Your task to perform on an android device: Open display settings Image 0: 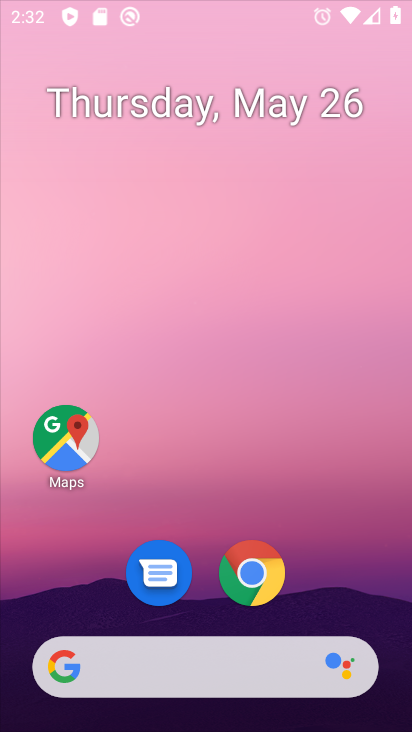
Step 0: click (281, 12)
Your task to perform on an android device: Open display settings Image 1: 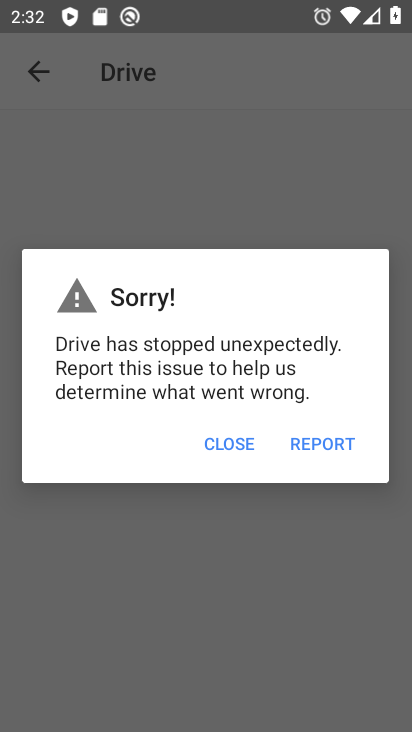
Step 1: press home button
Your task to perform on an android device: Open display settings Image 2: 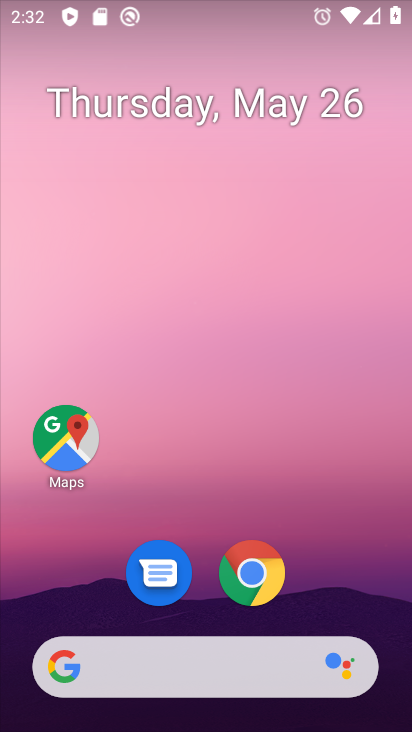
Step 2: drag from (325, 591) to (269, 163)
Your task to perform on an android device: Open display settings Image 3: 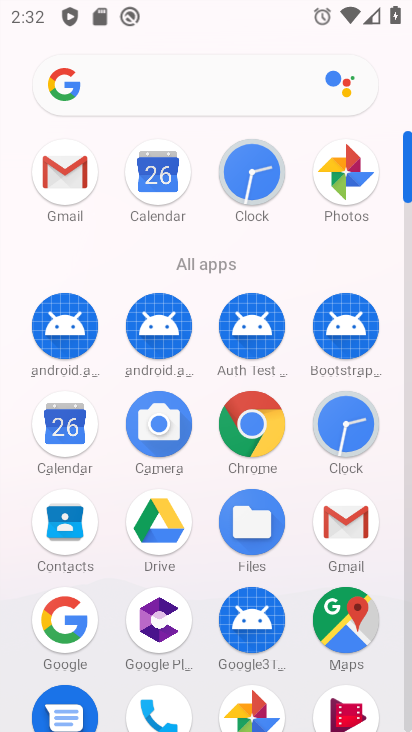
Step 3: drag from (213, 590) to (215, 464)
Your task to perform on an android device: Open display settings Image 4: 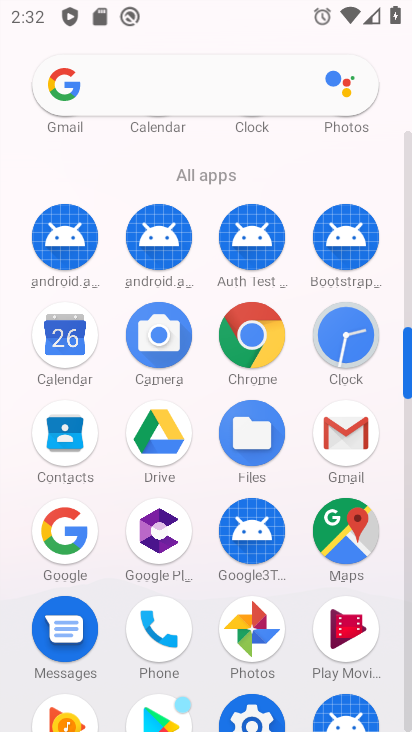
Step 4: drag from (212, 595) to (213, 398)
Your task to perform on an android device: Open display settings Image 5: 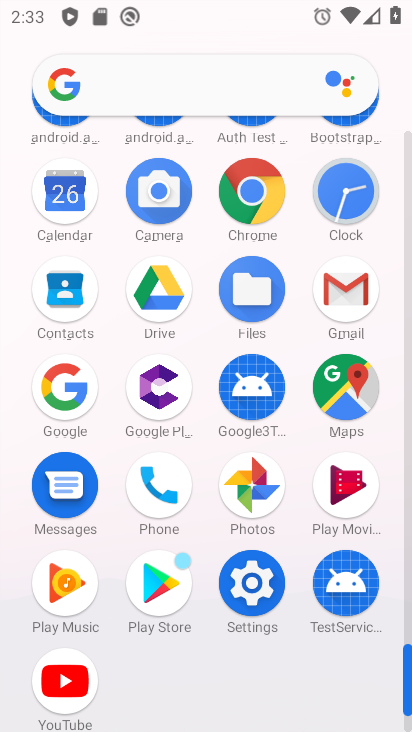
Step 5: click (254, 579)
Your task to perform on an android device: Open display settings Image 6: 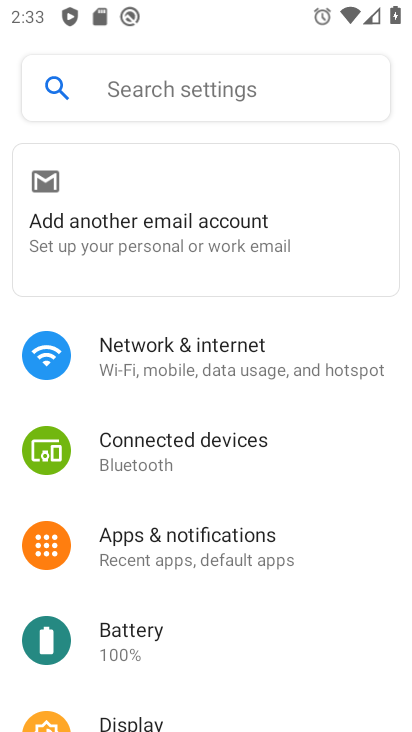
Step 6: drag from (165, 587) to (211, 487)
Your task to perform on an android device: Open display settings Image 7: 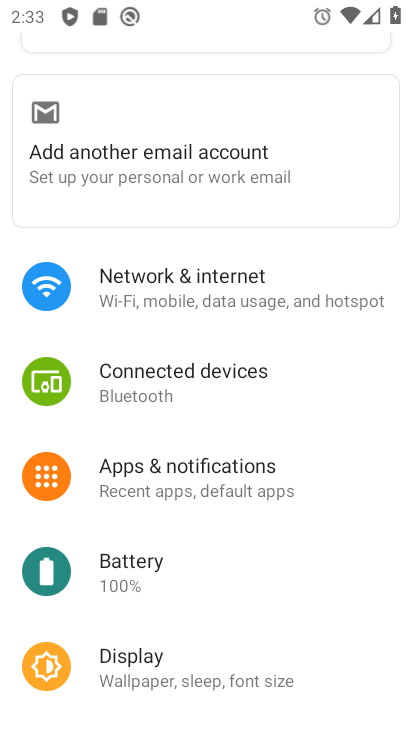
Step 7: click (146, 667)
Your task to perform on an android device: Open display settings Image 8: 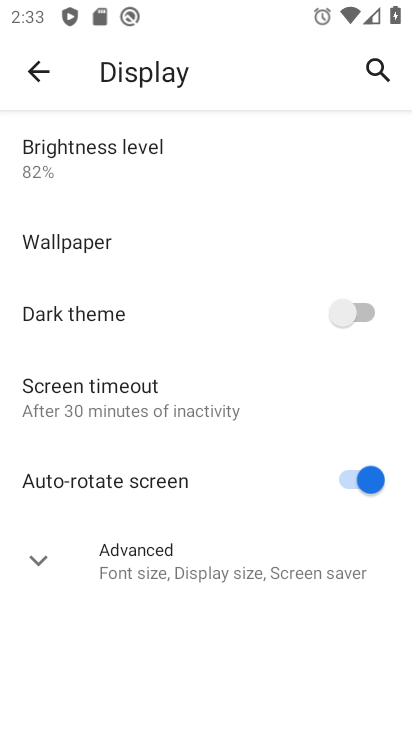
Step 8: task complete